Your task to perform on an android device: all mails in gmail Image 0: 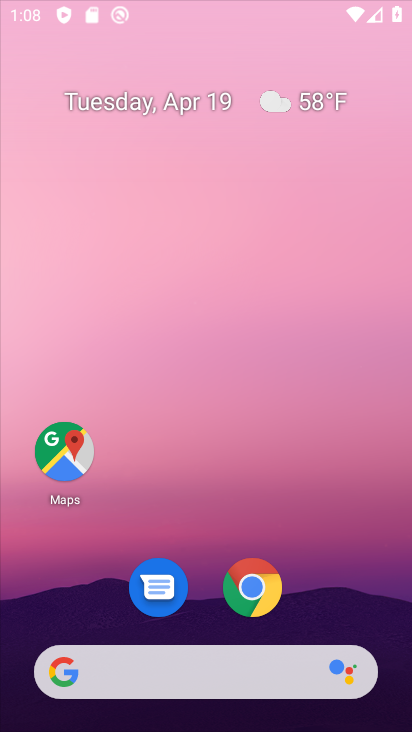
Step 0: click (258, 576)
Your task to perform on an android device: all mails in gmail Image 1: 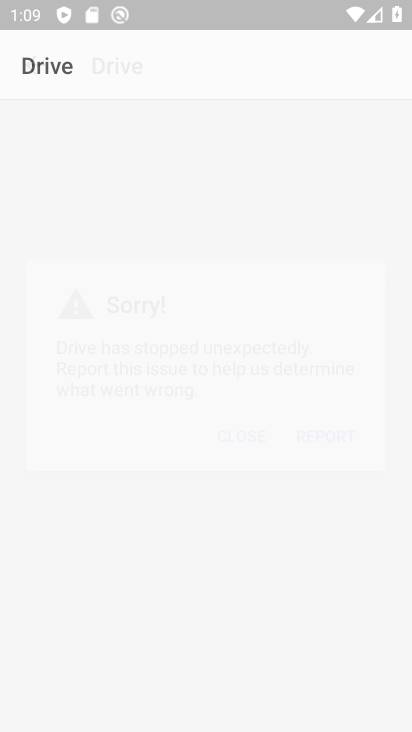
Step 1: click (257, 587)
Your task to perform on an android device: all mails in gmail Image 2: 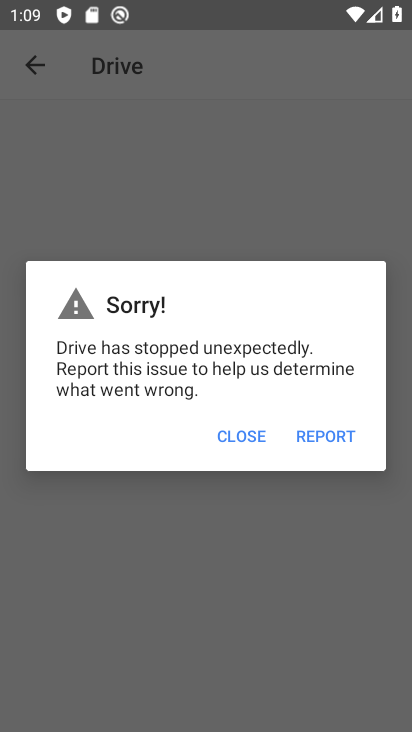
Step 2: press home button
Your task to perform on an android device: all mails in gmail Image 3: 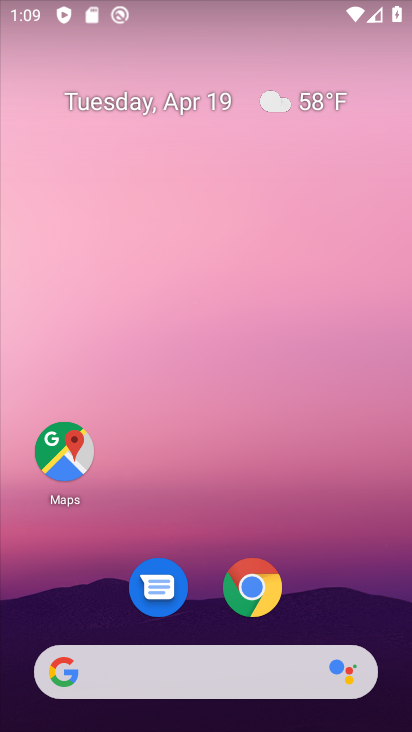
Step 3: drag from (341, 568) to (297, 171)
Your task to perform on an android device: all mails in gmail Image 4: 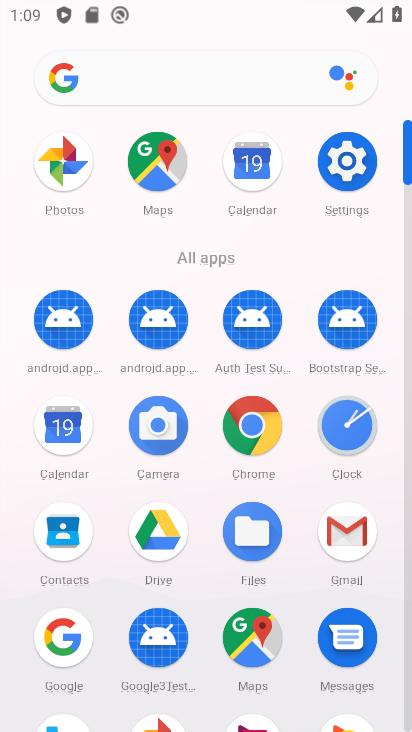
Step 4: click (339, 541)
Your task to perform on an android device: all mails in gmail Image 5: 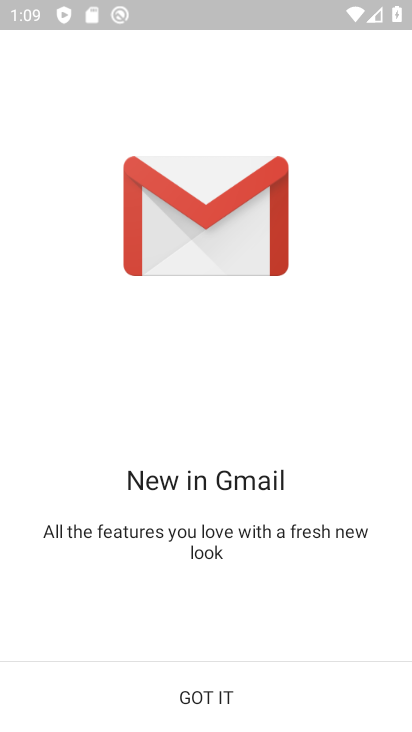
Step 5: click (201, 702)
Your task to perform on an android device: all mails in gmail Image 6: 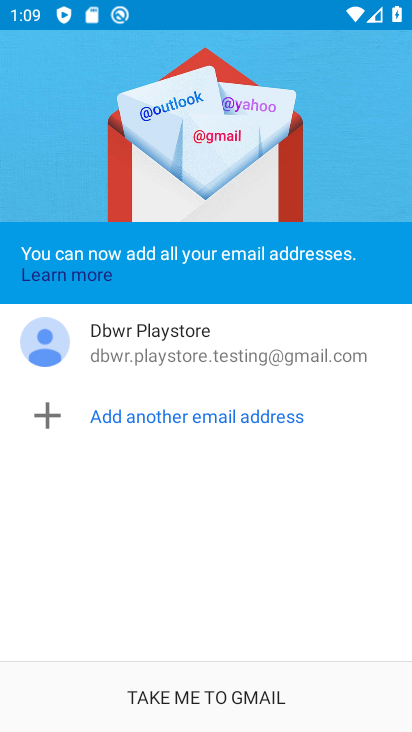
Step 6: click (201, 701)
Your task to perform on an android device: all mails in gmail Image 7: 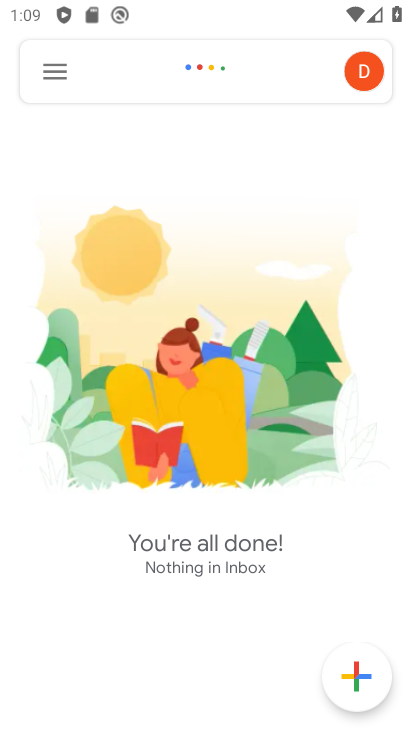
Step 7: click (55, 70)
Your task to perform on an android device: all mails in gmail Image 8: 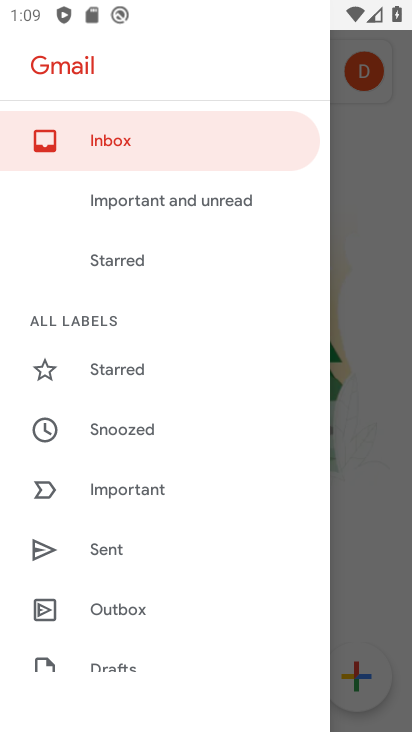
Step 8: drag from (128, 654) to (139, 244)
Your task to perform on an android device: all mails in gmail Image 9: 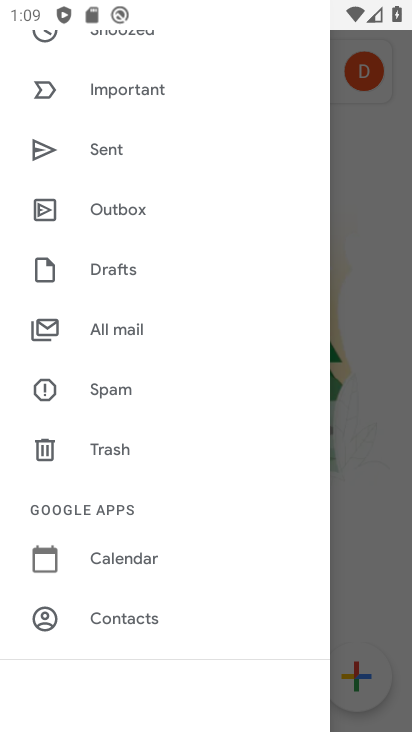
Step 9: click (126, 328)
Your task to perform on an android device: all mails in gmail Image 10: 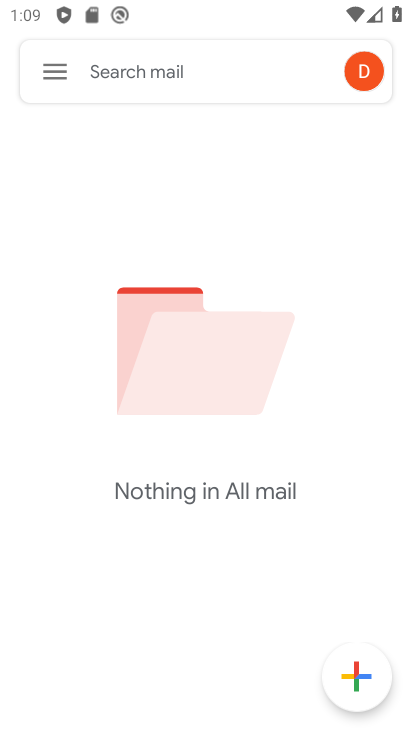
Step 10: task complete